Your task to perform on an android device: Go to internet settings Image 0: 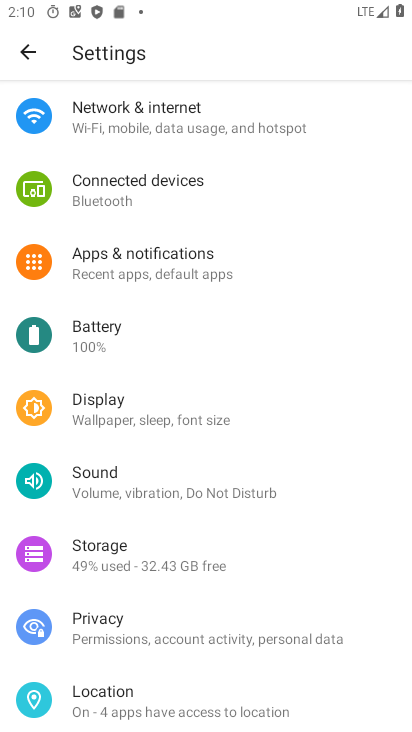
Step 0: click (126, 120)
Your task to perform on an android device: Go to internet settings Image 1: 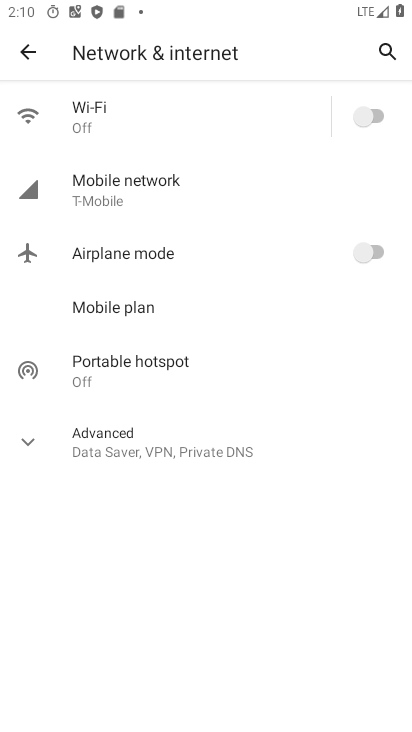
Step 1: task complete